Your task to perform on an android device: change alarm snooze length Image 0: 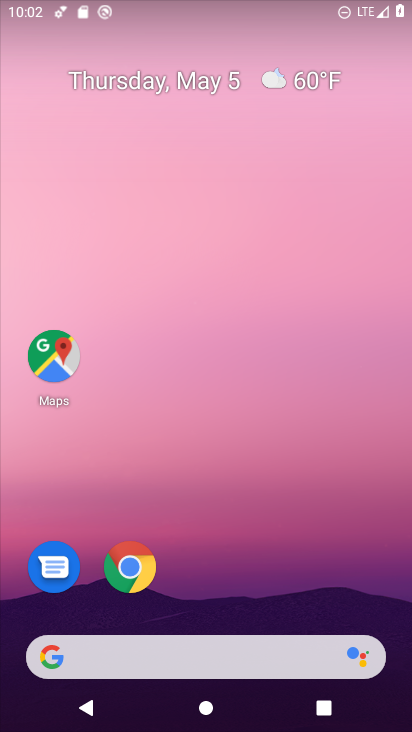
Step 0: drag from (211, 727) to (182, 197)
Your task to perform on an android device: change alarm snooze length Image 1: 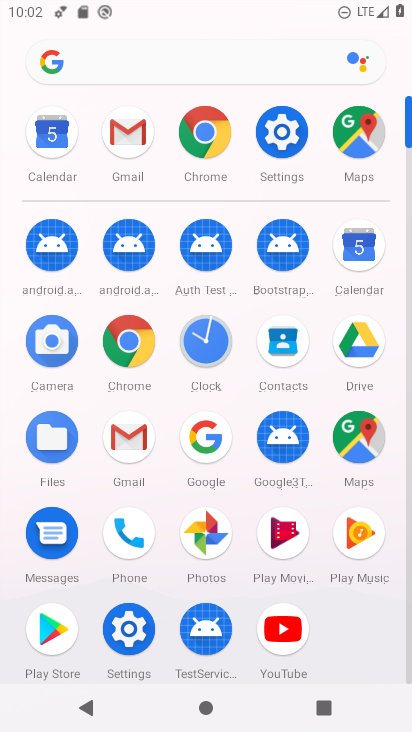
Step 1: click (207, 337)
Your task to perform on an android device: change alarm snooze length Image 2: 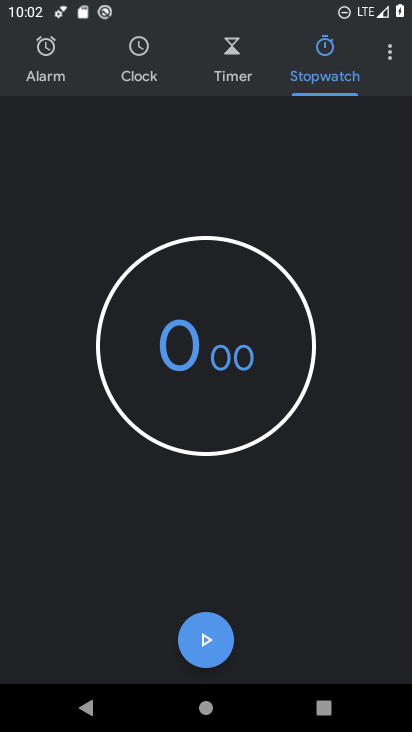
Step 2: click (391, 55)
Your task to perform on an android device: change alarm snooze length Image 3: 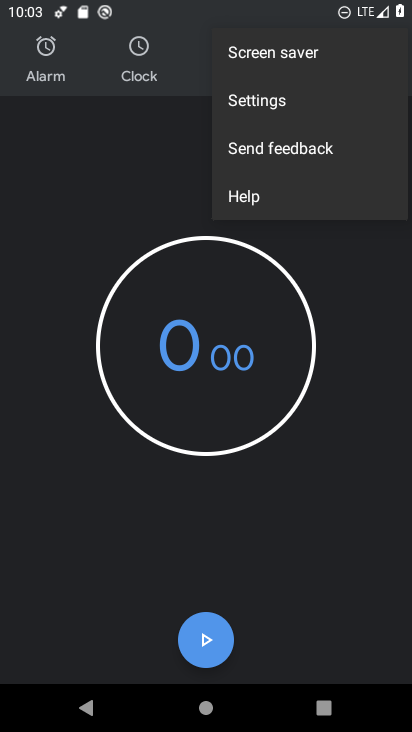
Step 3: click (260, 102)
Your task to perform on an android device: change alarm snooze length Image 4: 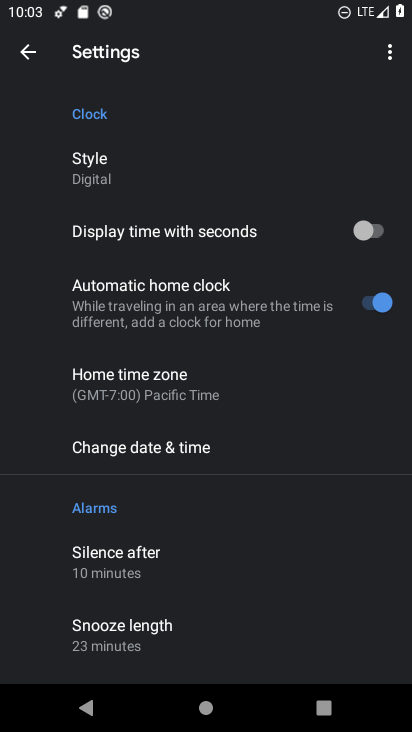
Step 4: click (122, 632)
Your task to perform on an android device: change alarm snooze length Image 5: 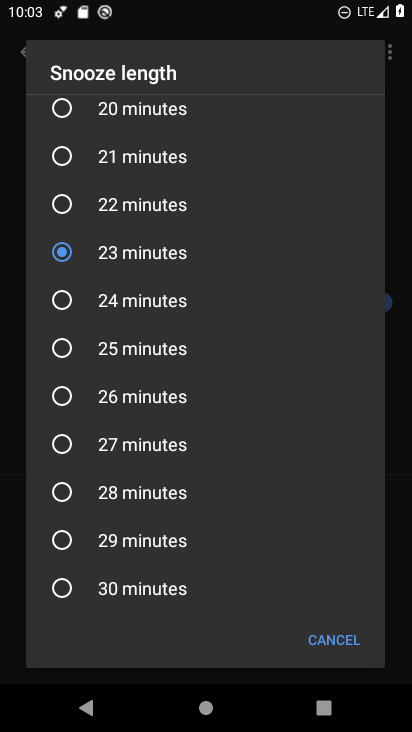
Step 5: click (66, 346)
Your task to perform on an android device: change alarm snooze length Image 6: 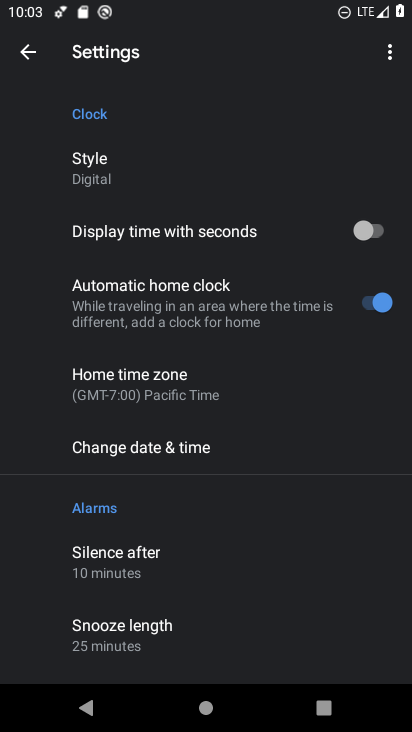
Step 6: task complete